Your task to perform on an android device: How much does a 3 bedroom apartment rent for in Houston? Image 0: 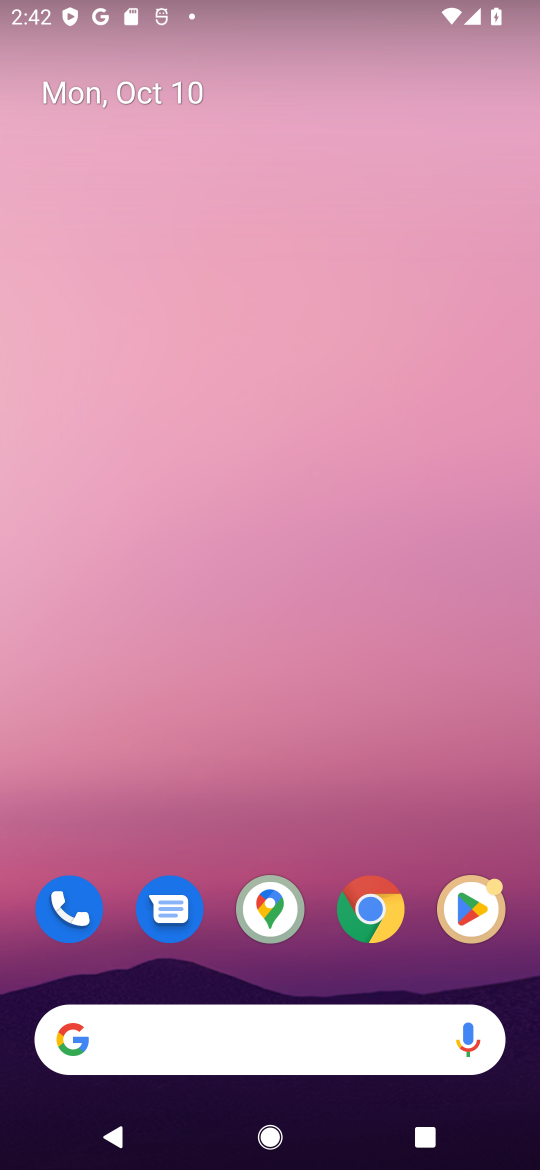
Step 0: click (374, 921)
Your task to perform on an android device: How much does a 3 bedroom apartment rent for in Houston? Image 1: 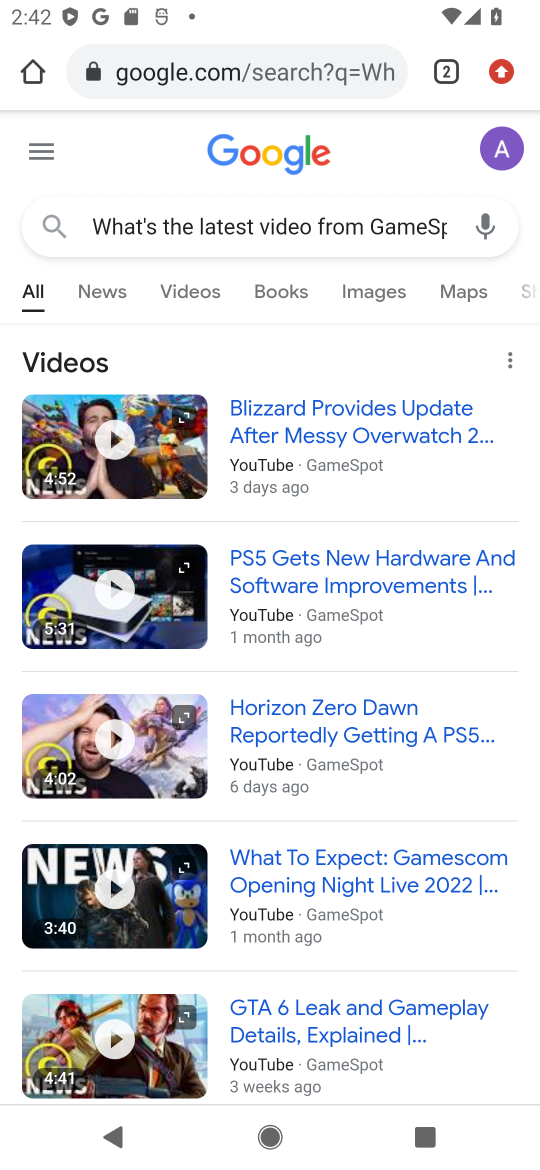
Step 1: click (297, 207)
Your task to perform on an android device: How much does a 3 bedroom apartment rent for in Houston? Image 2: 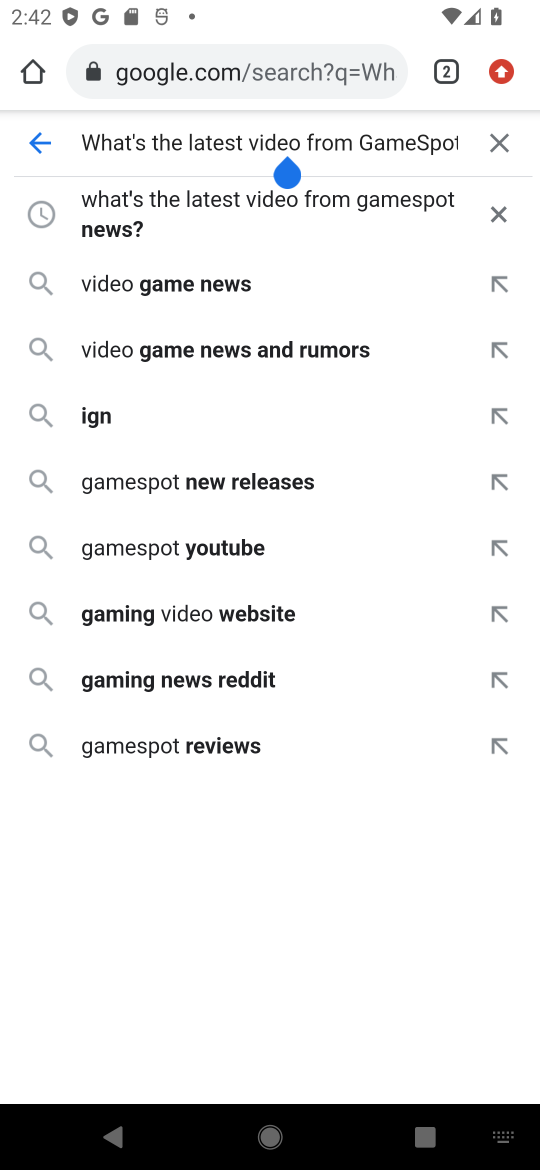
Step 2: click (497, 139)
Your task to perform on an android device: How much does a 3 bedroom apartment rent for in Houston? Image 3: 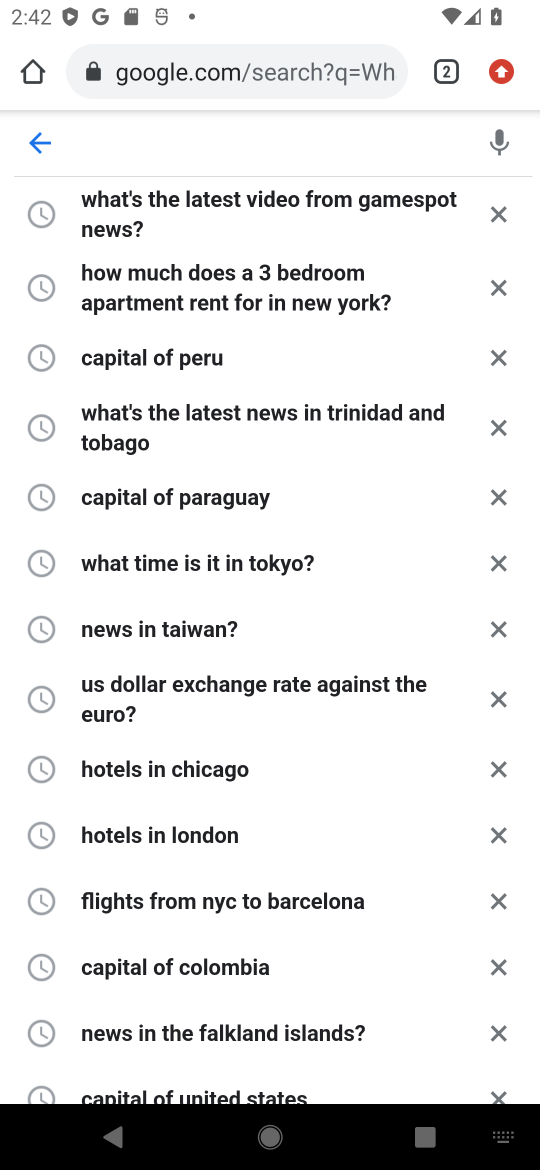
Step 3: type "How much does a 3 bedroom apartment rent for in Houston?"
Your task to perform on an android device: How much does a 3 bedroom apartment rent for in Houston? Image 4: 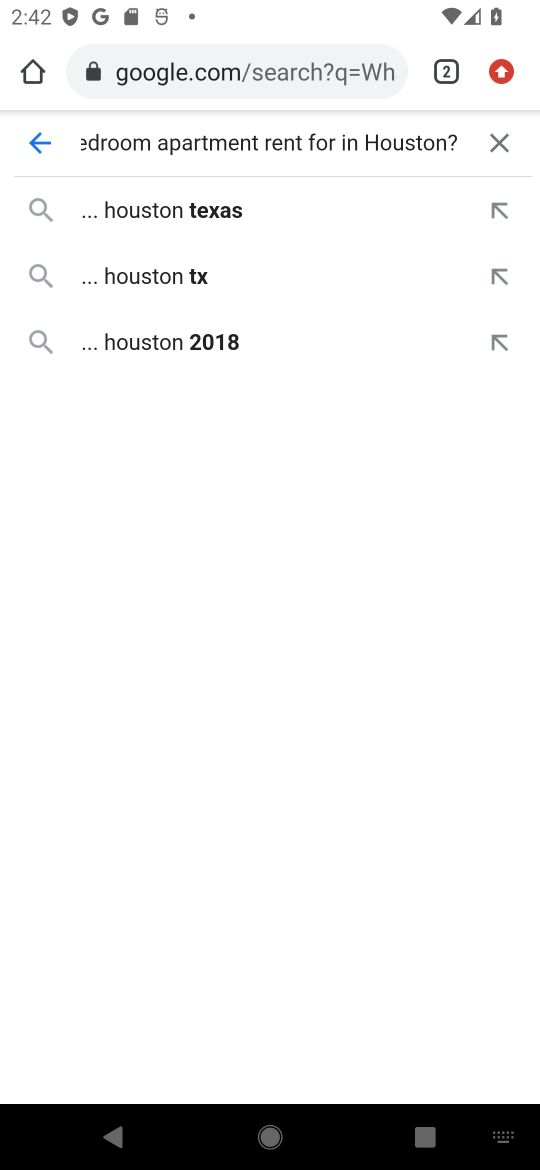
Step 4: click (188, 213)
Your task to perform on an android device: How much does a 3 bedroom apartment rent for in Houston? Image 5: 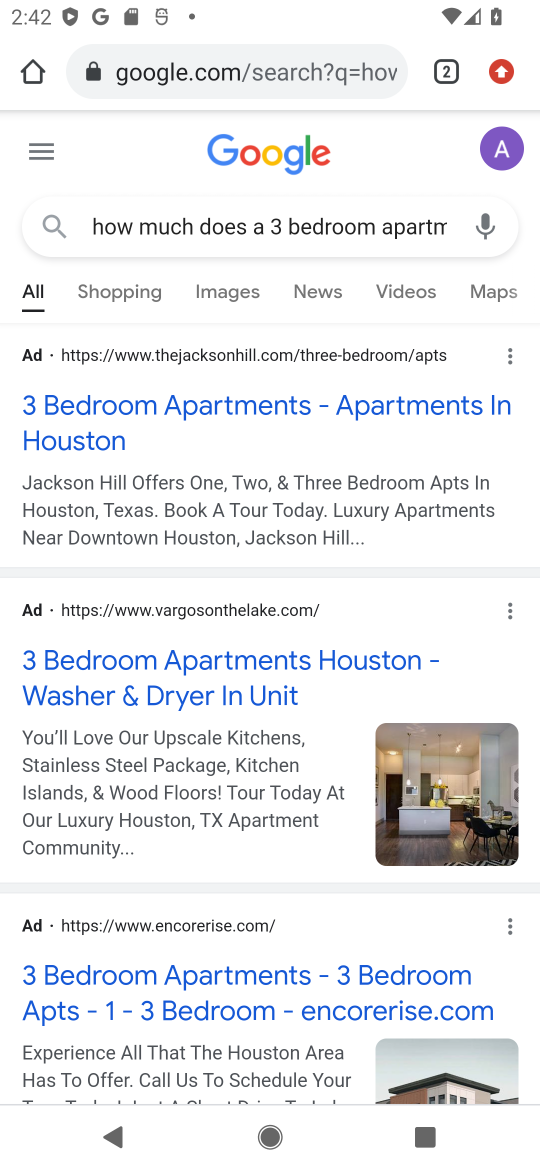
Step 5: click (112, 427)
Your task to perform on an android device: How much does a 3 bedroom apartment rent for in Houston? Image 6: 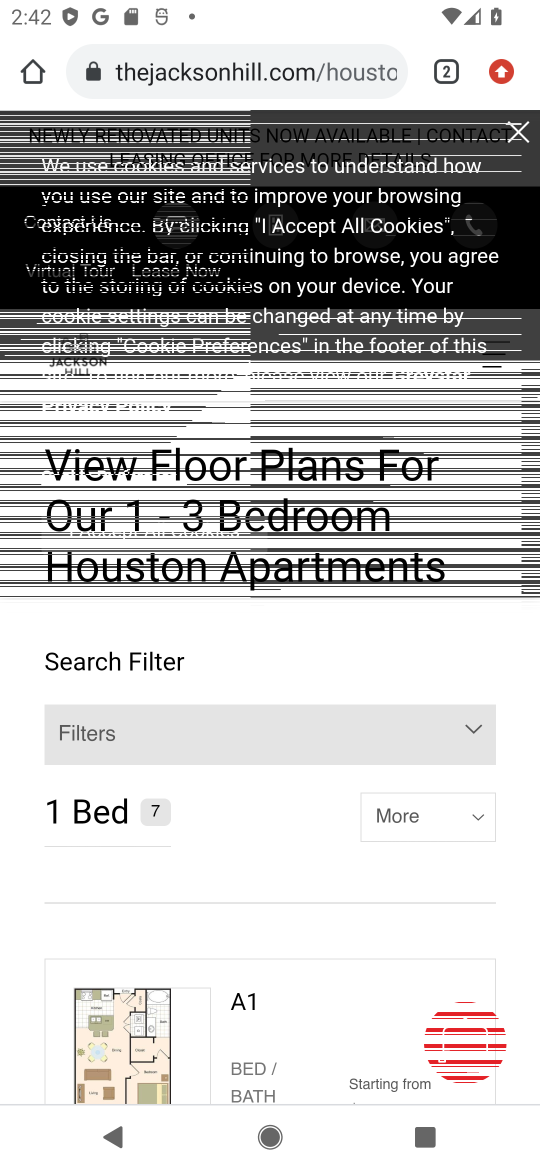
Step 6: click (107, 526)
Your task to perform on an android device: How much does a 3 bedroom apartment rent for in Houston? Image 7: 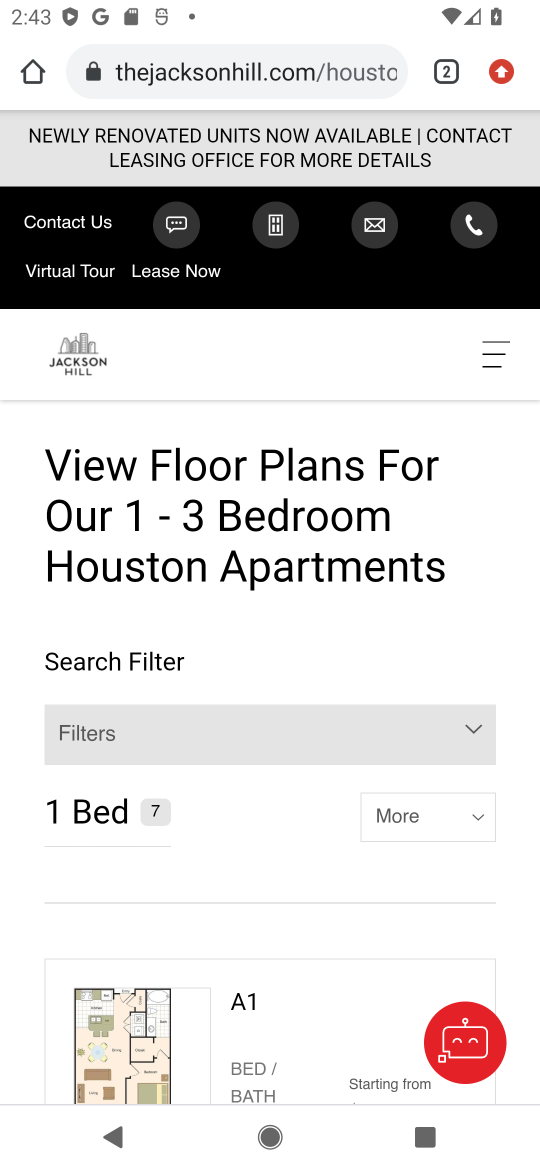
Step 7: task complete